Your task to perform on an android device: toggle pop-ups in chrome Image 0: 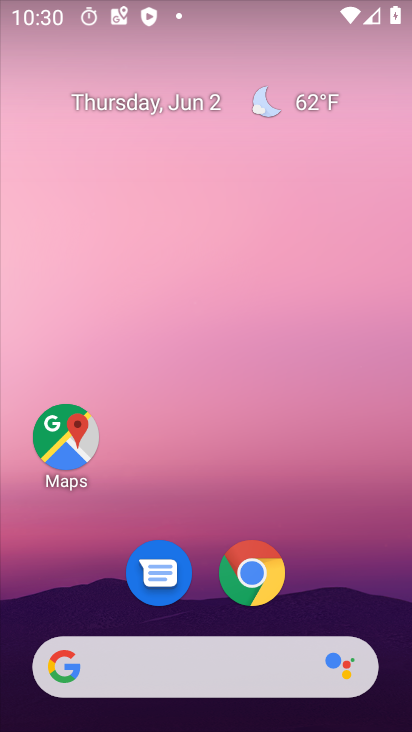
Step 0: drag from (261, 656) to (357, 91)
Your task to perform on an android device: toggle pop-ups in chrome Image 1: 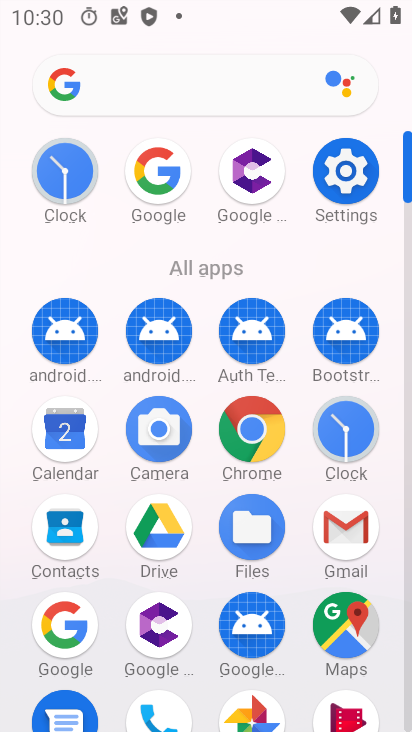
Step 1: click (226, 421)
Your task to perform on an android device: toggle pop-ups in chrome Image 2: 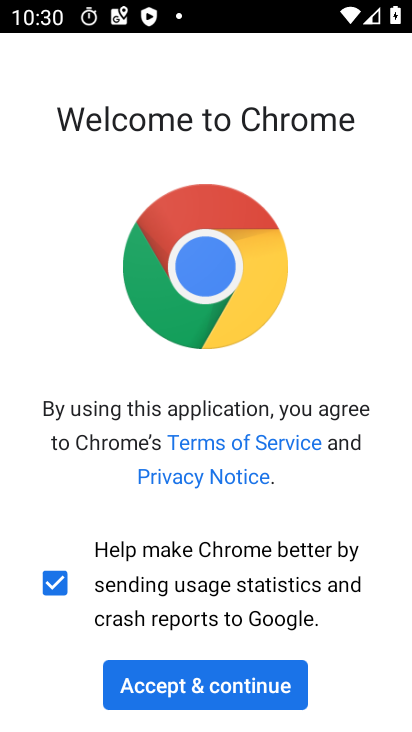
Step 2: click (225, 677)
Your task to perform on an android device: toggle pop-ups in chrome Image 3: 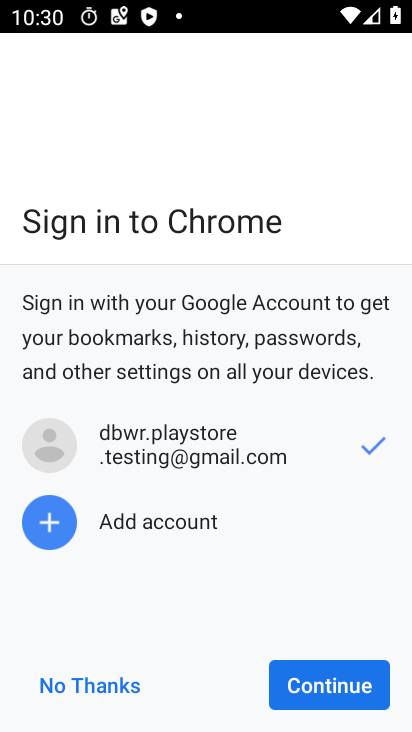
Step 3: click (135, 685)
Your task to perform on an android device: toggle pop-ups in chrome Image 4: 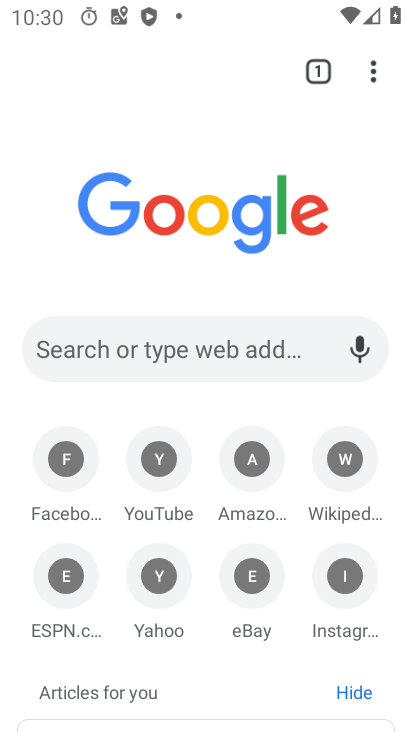
Step 4: drag from (378, 72) to (160, 601)
Your task to perform on an android device: toggle pop-ups in chrome Image 5: 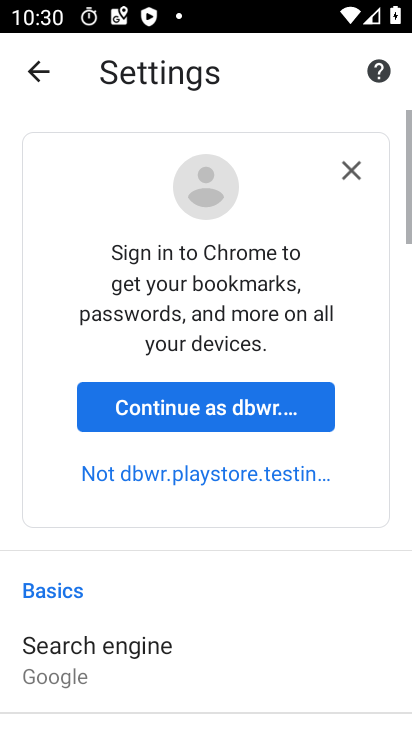
Step 5: drag from (195, 555) to (231, 134)
Your task to perform on an android device: toggle pop-ups in chrome Image 6: 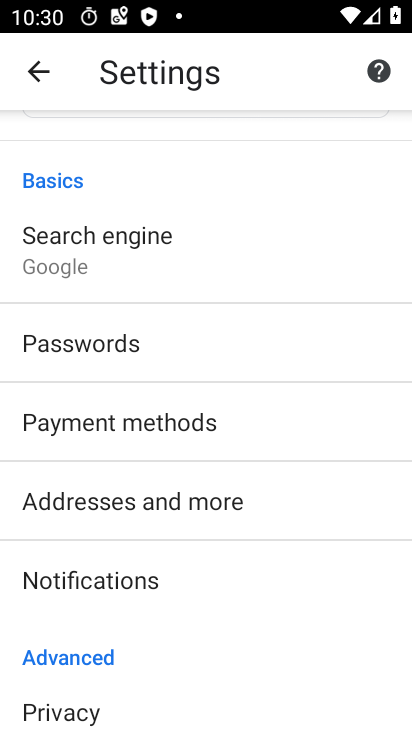
Step 6: drag from (115, 653) to (133, 235)
Your task to perform on an android device: toggle pop-ups in chrome Image 7: 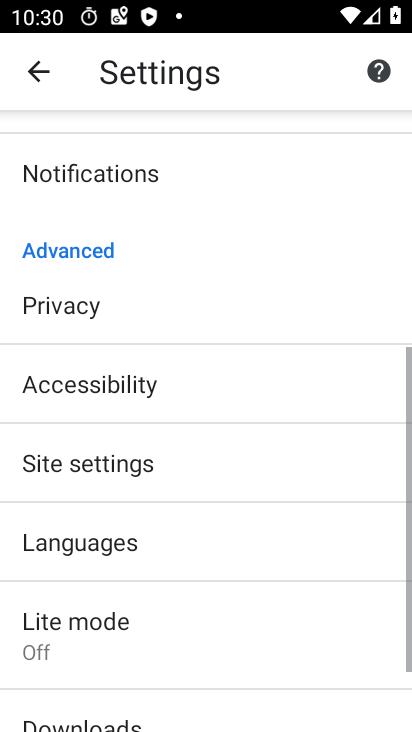
Step 7: click (117, 645)
Your task to perform on an android device: toggle pop-ups in chrome Image 8: 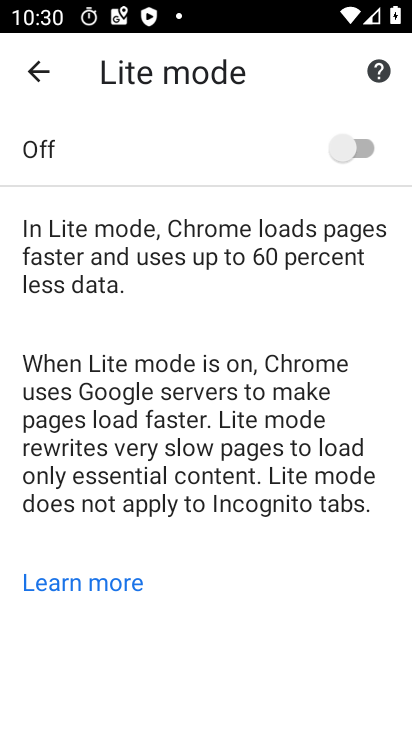
Step 8: press back button
Your task to perform on an android device: toggle pop-ups in chrome Image 9: 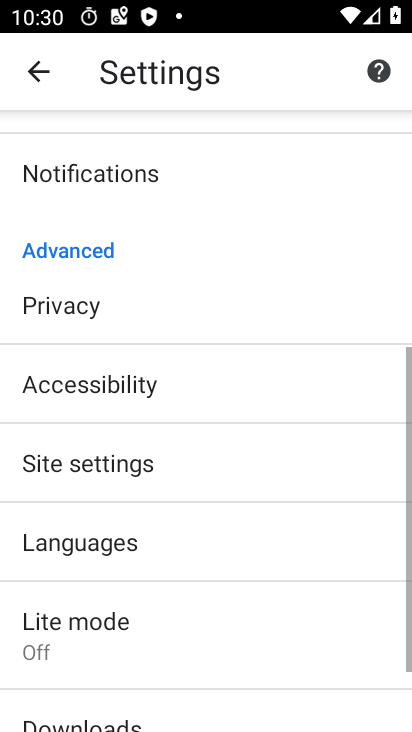
Step 9: click (132, 483)
Your task to perform on an android device: toggle pop-ups in chrome Image 10: 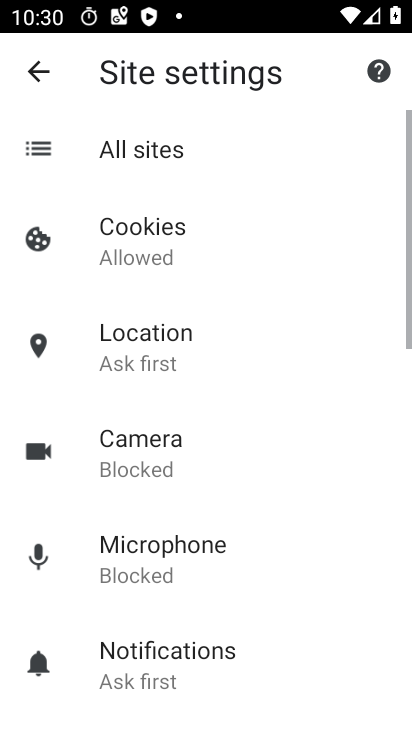
Step 10: drag from (181, 623) to (334, 161)
Your task to perform on an android device: toggle pop-ups in chrome Image 11: 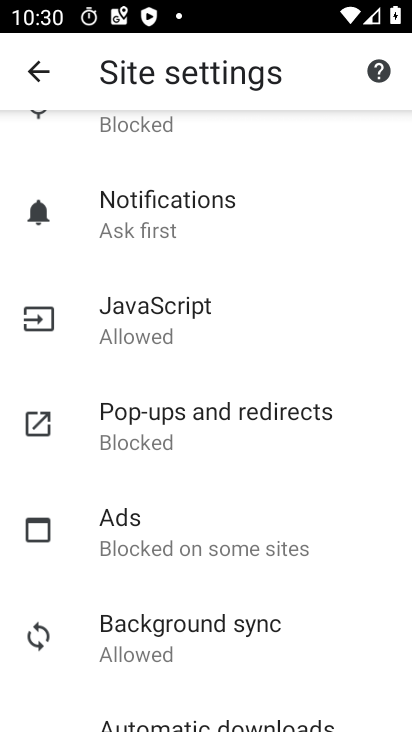
Step 11: click (214, 432)
Your task to perform on an android device: toggle pop-ups in chrome Image 12: 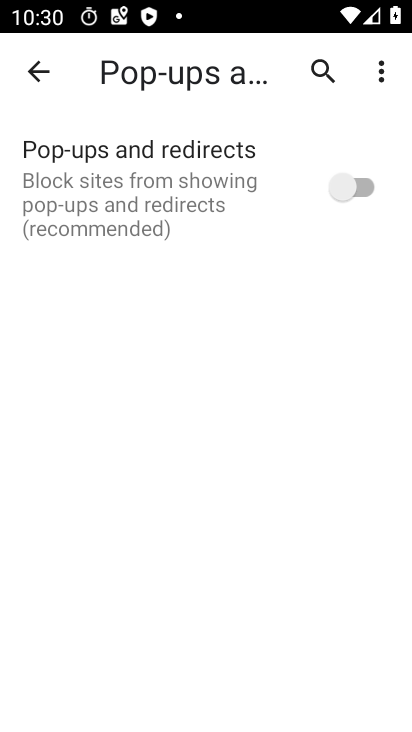
Step 12: task complete